Your task to perform on an android device: change the upload size in google photos Image 0: 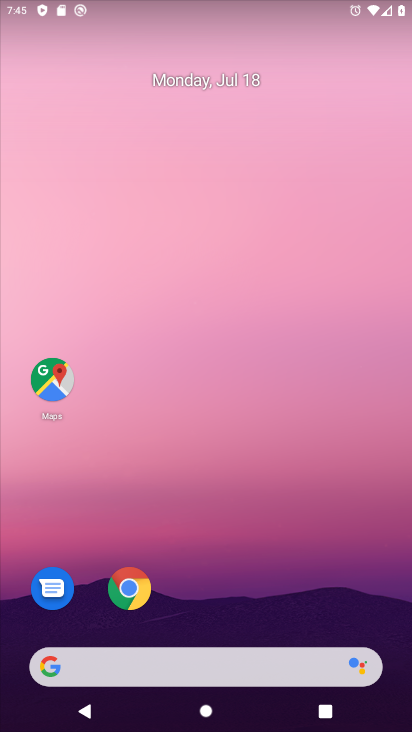
Step 0: drag from (220, 607) to (222, 111)
Your task to perform on an android device: change the upload size in google photos Image 1: 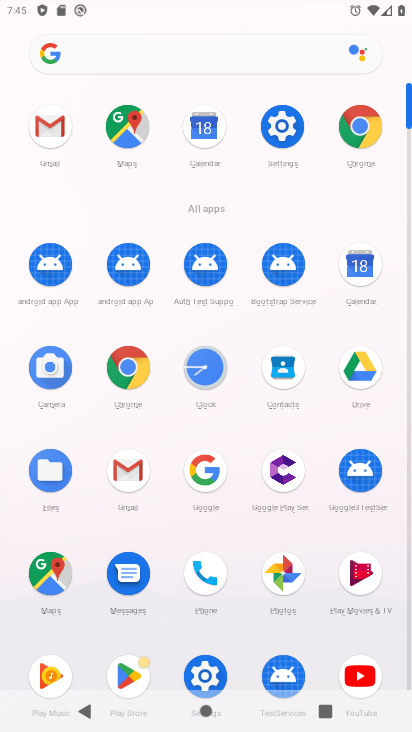
Step 1: click (286, 580)
Your task to perform on an android device: change the upload size in google photos Image 2: 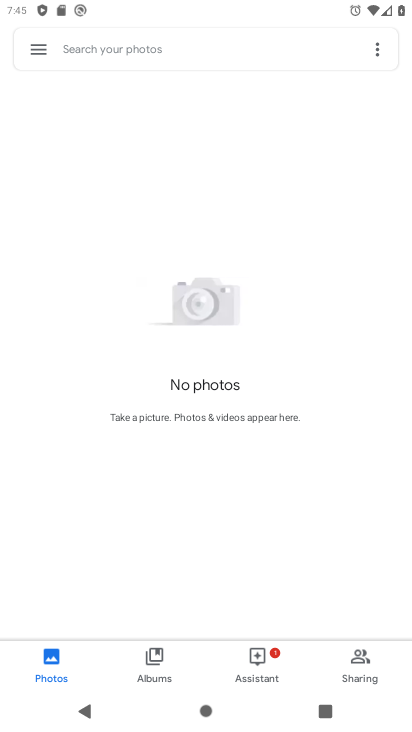
Step 2: click (24, 43)
Your task to perform on an android device: change the upload size in google photos Image 3: 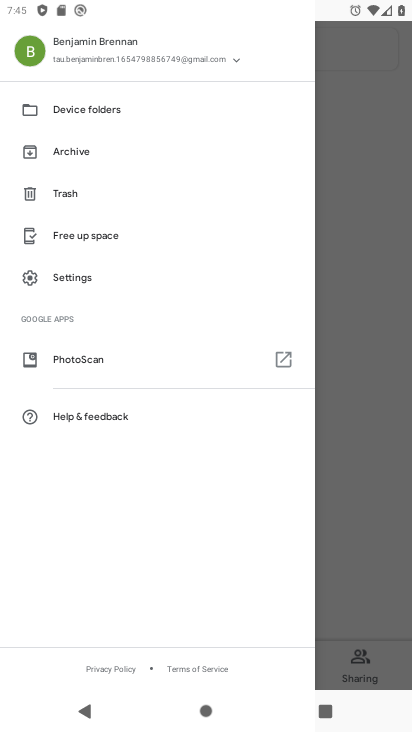
Step 3: click (65, 271)
Your task to perform on an android device: change the upload size in google photos Image 4: 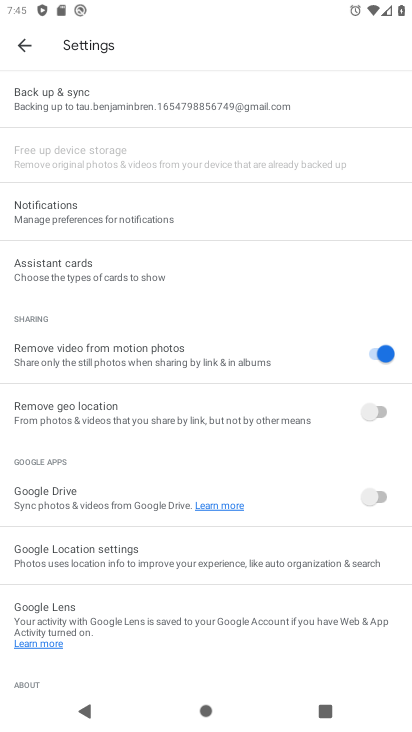
Step 4: click (85, 101)
Your task to perform on an android device: change the upload size in google photos Image 5: 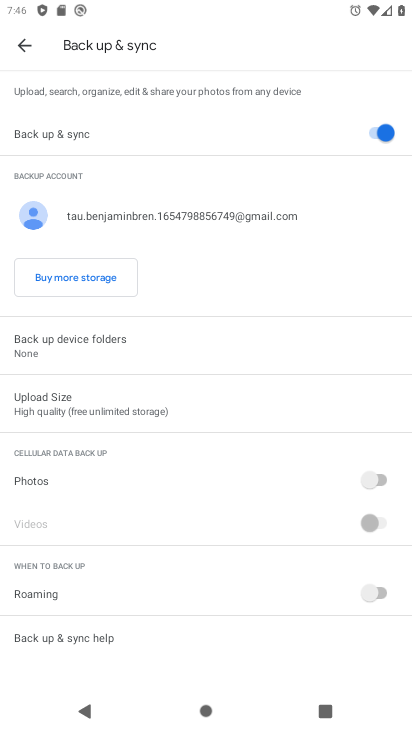
Step 5: click (91, 408)
Your task to perform on an android device: change the upload size in google photos Image 6: 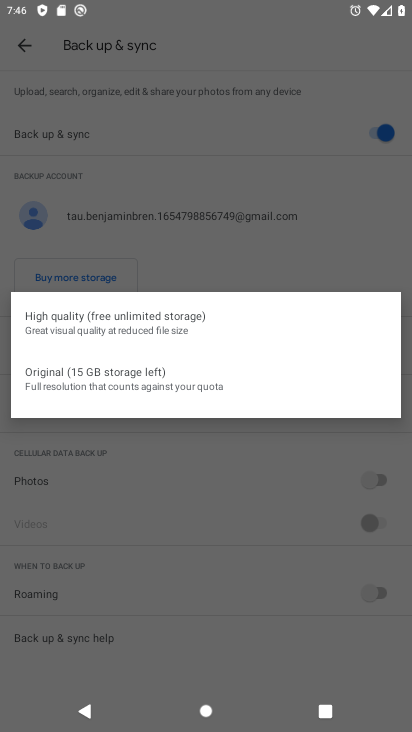
Step 6: click (84, 438)
Your task to perform on an android device: change the upload size in google photos Image 7: 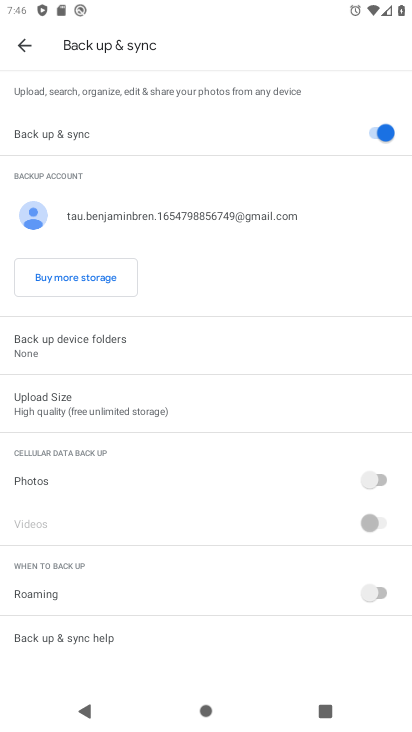
Step 7: click (90, 401)
Your task to perform on an android device: change the upload size in google photos Image 8: 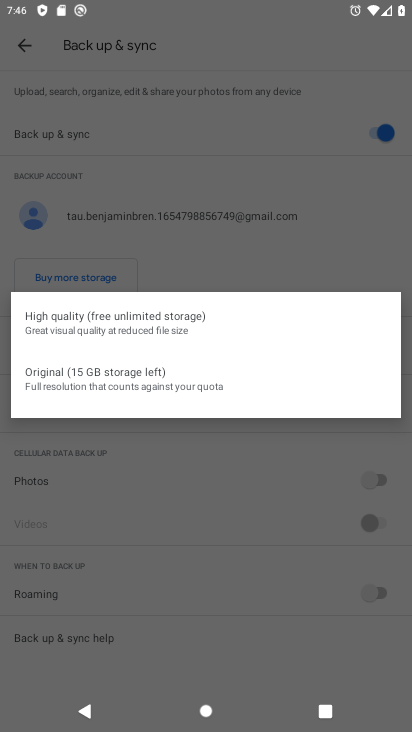
Step 8: click (97, 396)
Your task to perform on an android device: change the upload size in google photos Image 9: 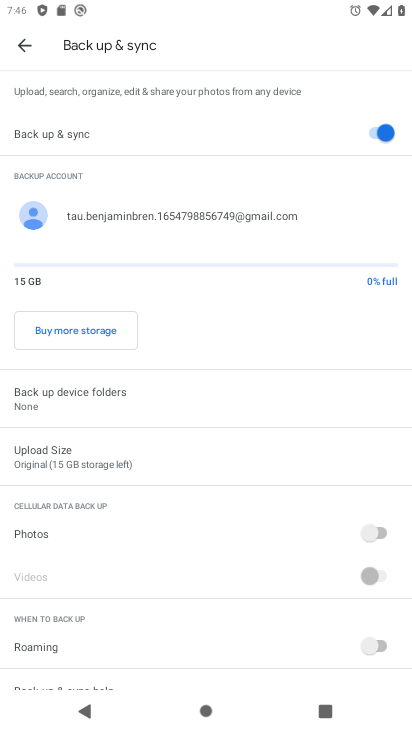
Step 9: task complete